Your task to perform on an android device: Open calendar and show me the first week of next month Image 0: 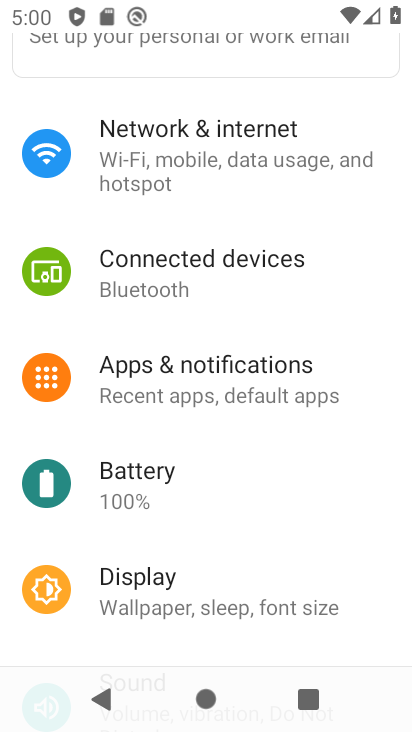
Step 0: press home button
Your task to perform on an android device: Open calendar and show me the first week of next month Image 1: 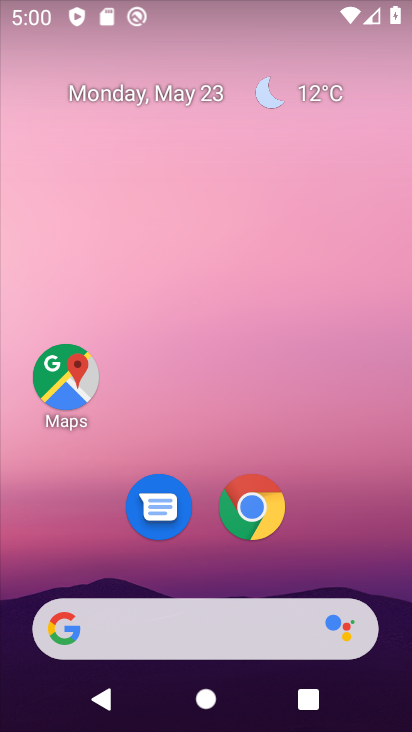
Step 1: drag from (29, 517) to (300, 66)
Your task to perform on an android device: Open calendar and show me the first week of next month Image 2: 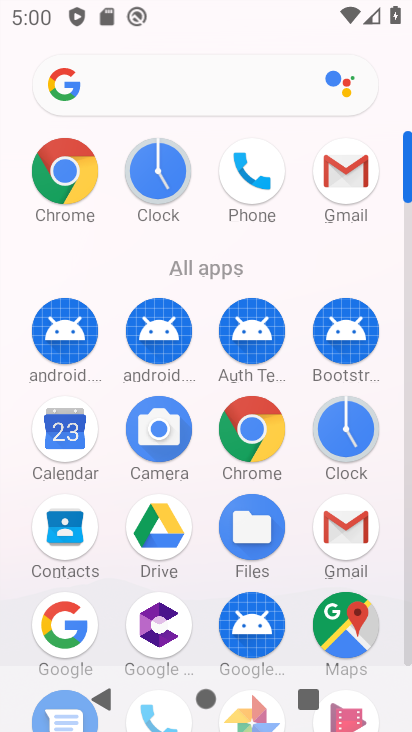
Step 2: click (68, 431)
Your task to perform on an android device: Open calendar and show me the first week of next month Image 3: 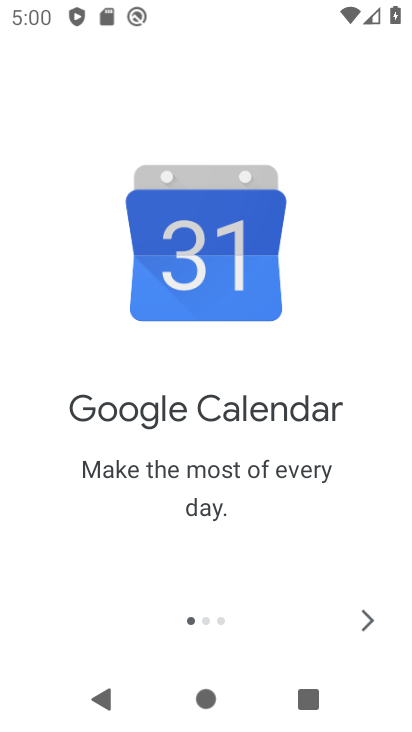
Step 3: click (367, 620)
Your task to perform on an android device: Open calendar and show me the first week of next month Image 4: 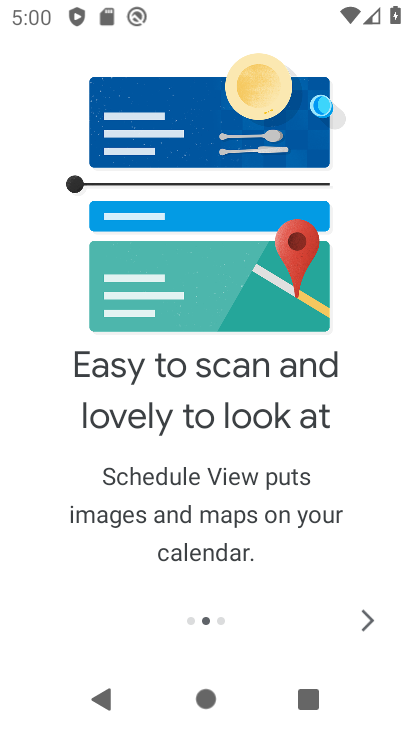
Step 4: click (367, 620)
Your task to perform on an android device: Open calendar and show me the first week of next month Image 5: 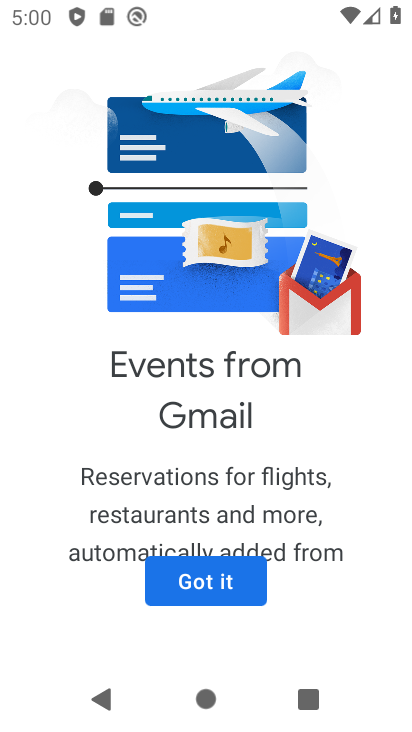
Step 5: click (249, 584)
Your task to perform on an android device: Open calendar and show me the first week of next month Image 6: 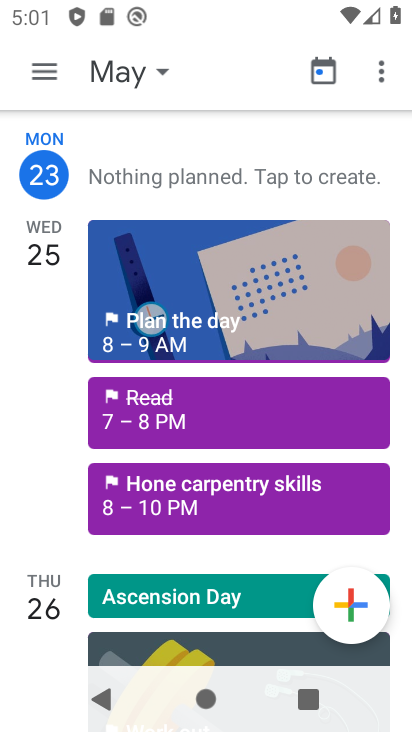
Step 6: click (91, 74)
Your task to perform on an android device: Open calendar and show me the first week of next month Image 7: 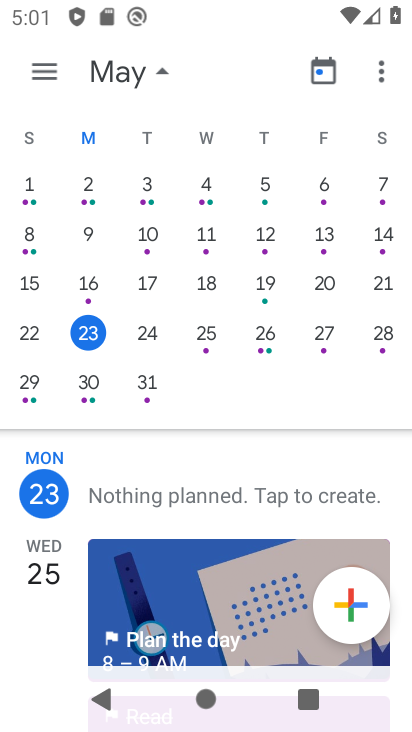
Step 7: drag from (341, 279) to (6, 257)
Your task to perform on an android device: Open calendar and show me the first week of next month Image 8: 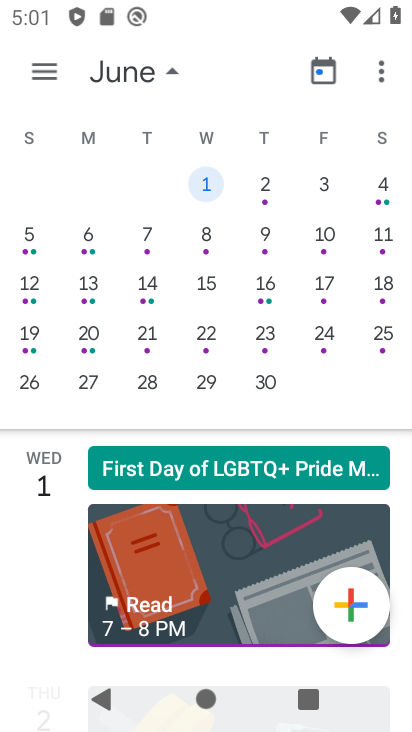
Step 8: click (265, 187)
Your task to perform on an android device: Open calendar and show me the first week of next month Image 9: 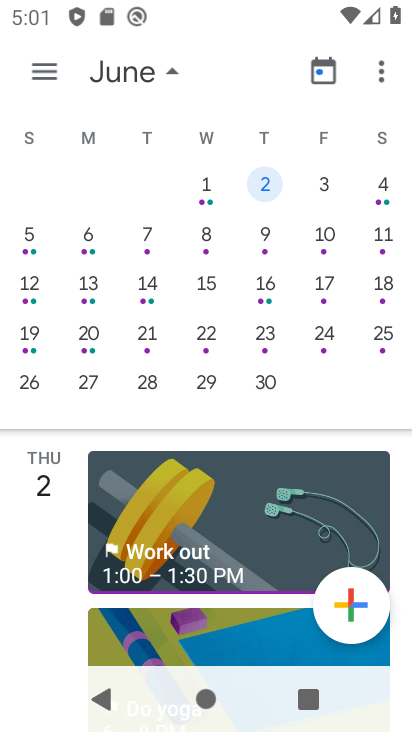
Step 9: click (325, 185)
Your task to perform on an android device: Open calendar and show me the first week of next month Image 10: 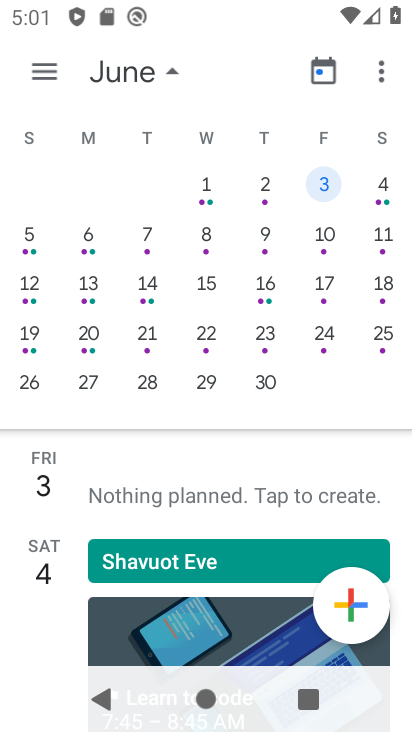
Step 10: click (386, 179)
Your task to perform on an android device: Open calendar and show me the first week of next month Image 11: 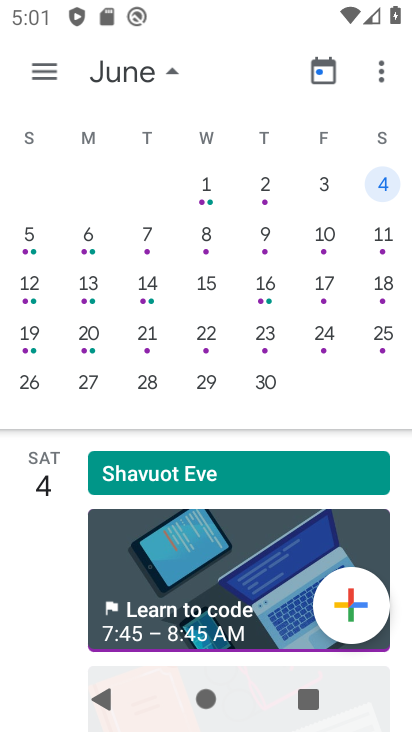
Step 11: click (27, 238)
Your task to perform on an android device: Open calendar and show me the first week of next month Image 12: 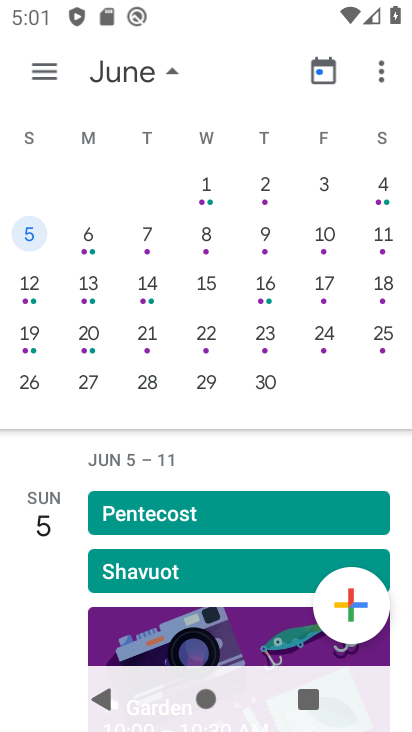
Step 12: click (93, 240)
Your task to perform on an android device: Open calendar and show me the first week of next month Image 13: 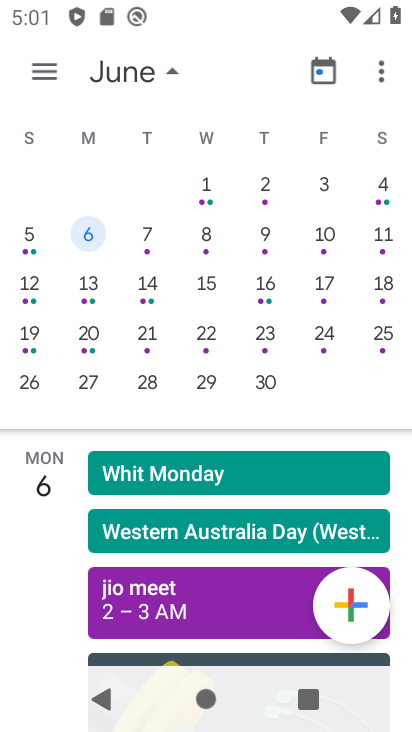
Step 13: task complete